Your task to perform on an android device: Go to Android settings Image 0: 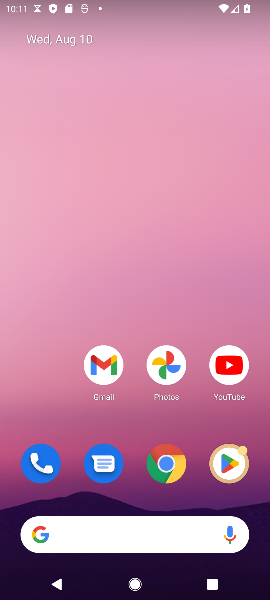
Step 0: drag from (23, 582) to (166, 159)
Your task to perform on an android device: Go to Android settings Image 1: 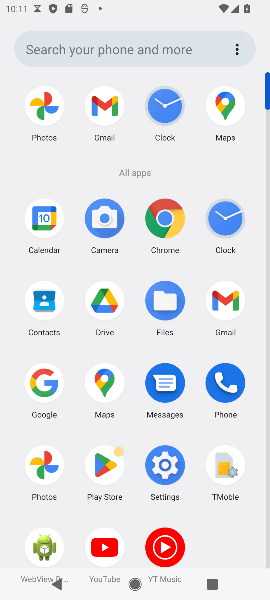
Step 1: click (158, 473)
Your task to perform on an android device: Go to Android settings Image 2: 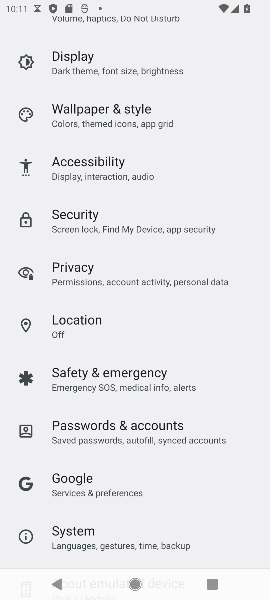
Step 2: drag from (208, 519) to (244, 241)
Your task to perform on an android device: Go to Android settings Image 3: 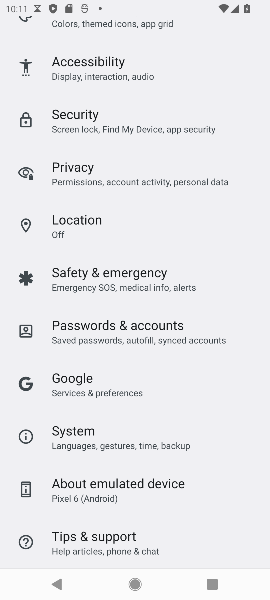
Step 3: drag from (236, 534) to (244, 420)
Your task to perform on an android device: Go to Android settings Image 4: 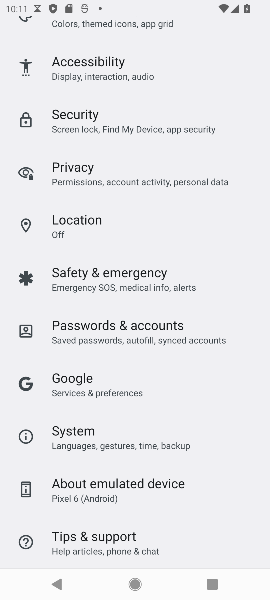
Step 4: drag from (214, 546) to (208, 269)
Your task to perform on an android device: Go to Android settings Image 5: 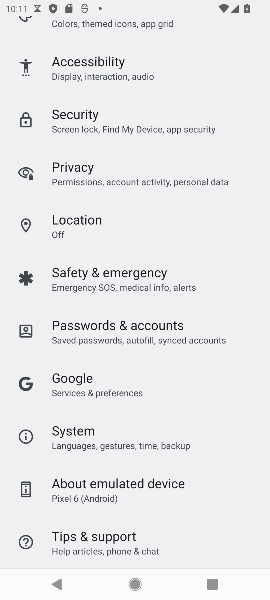
Step 5: drag from (244, 53) to (223, 411)
Your task to perform on an android device: Go to Android settings Image 6: 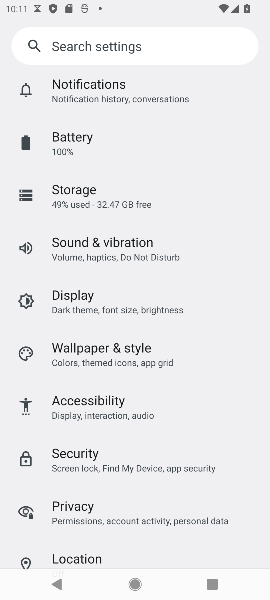
Step 6: drag from (235, 553) to (238, 242)
Your task to perform on an android device: Go to Android settings Image 7: 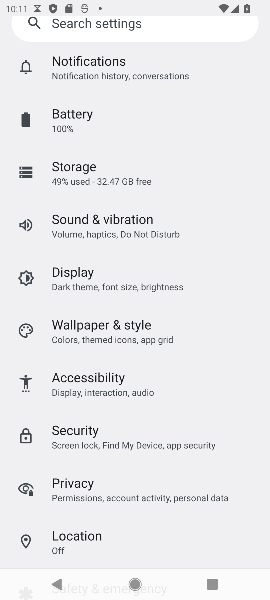
Step 7: drag from (192, 539) to (248, 327)
Your task to perform on an android device: Go to Android settings Image 8: 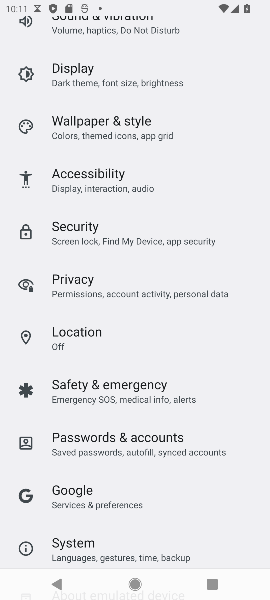
Step 8: drag from (221, 542) to (213, 338)
Your task to perform on an android device: Go to Android settings Image 9: 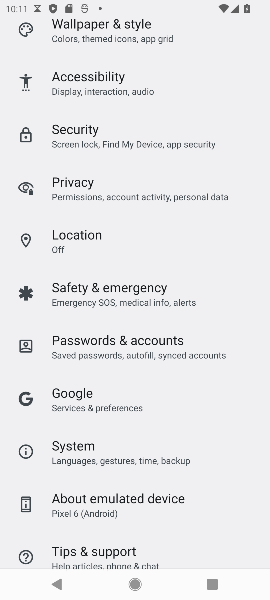
Step 9: click (119, 503)
Your task to perform on an android device: Go to Android settings Image 10: 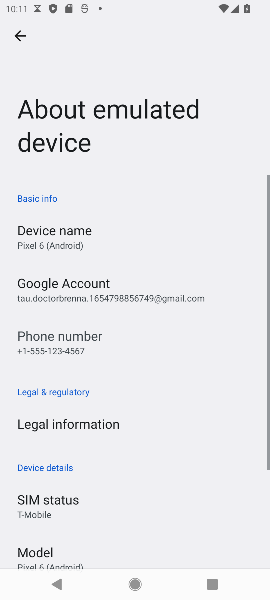
Step 10: drag from (124, 508) to (203, 146)
Your task to perform on an android device: Go to Android settings Image 11: 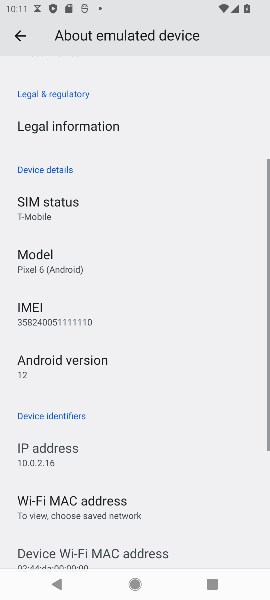
Step 11: click (88, 359)
Your task to perform on an android device: Go to Android settings Image 12: 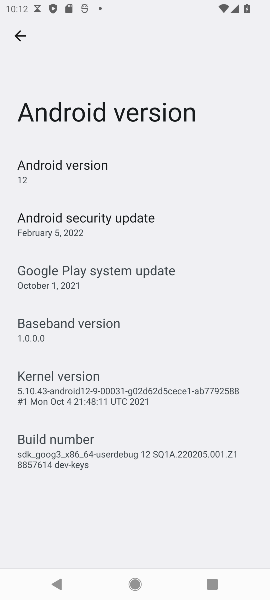
Step 12: click (89, 172)
Your task to perform on an android device: Go to Android settings Image 13: 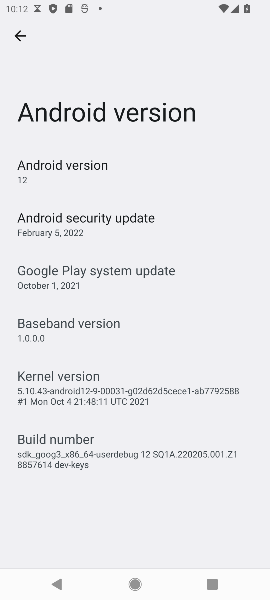
Step 13: task complete